Your task to perform on an android device: turn notification dots on Image 0: 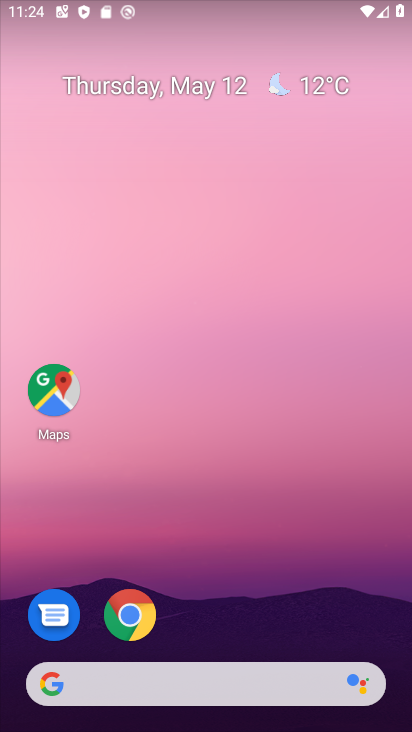
Step 0: drag from (210, 635) to (215, 170)
Your task to perform on an android device: turn notification dots on Image 1: 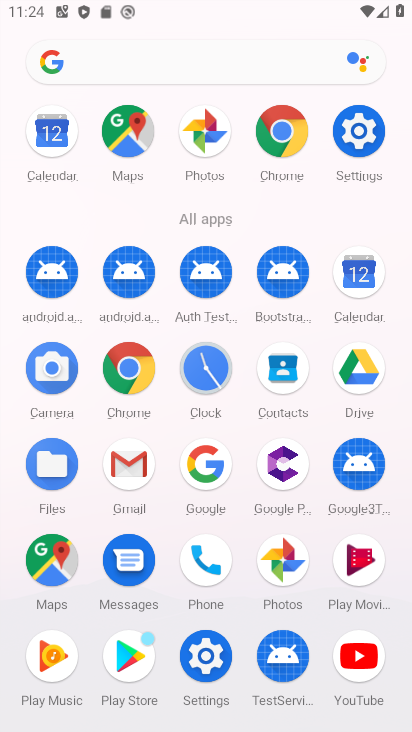
Step 1: click (348, 136)
Your task to perform on an android device: turn notification dots on Image 2: 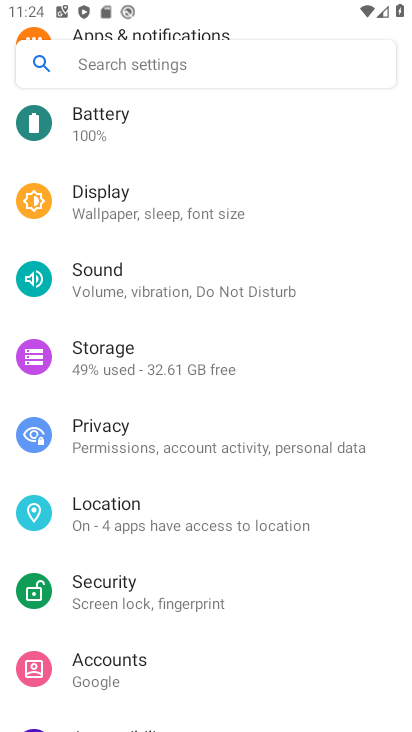
Step 2: drag from (241, 185) to (228, 510)
Your task to perform on an android device: turn notification dots on Image 3: 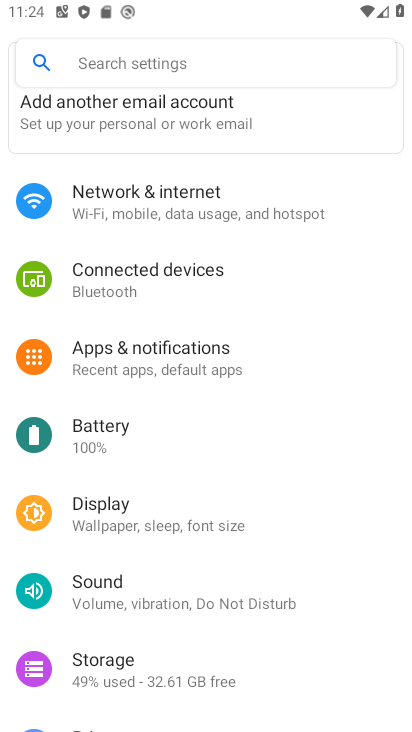
Step 3: click (170, 339)
Your task to perform on an android device: turn notification dots on Image 4: 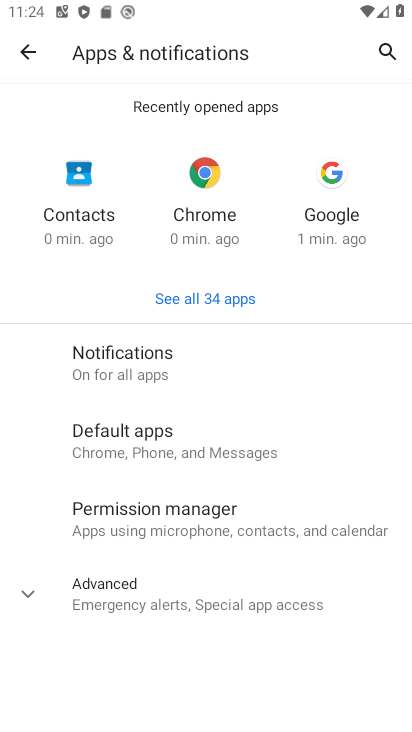
Step 4: click (172, 372)
Your task to perform on an android device: turn notification dots on Image 5: 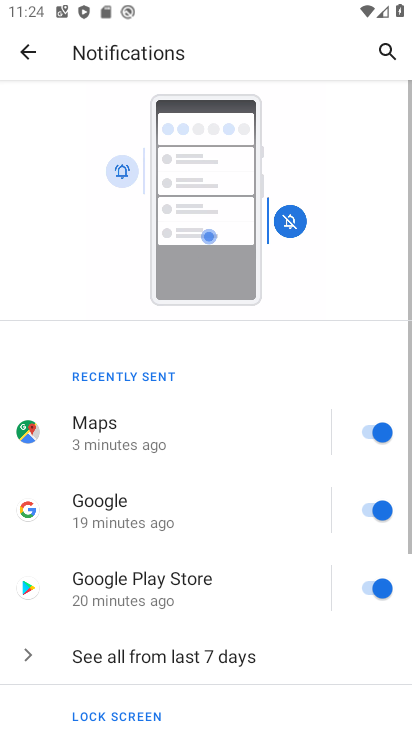
Step 5: drag from (217, 626) to (252, 304)
Your task to perform on an android device: turn notification dots on Image 6: 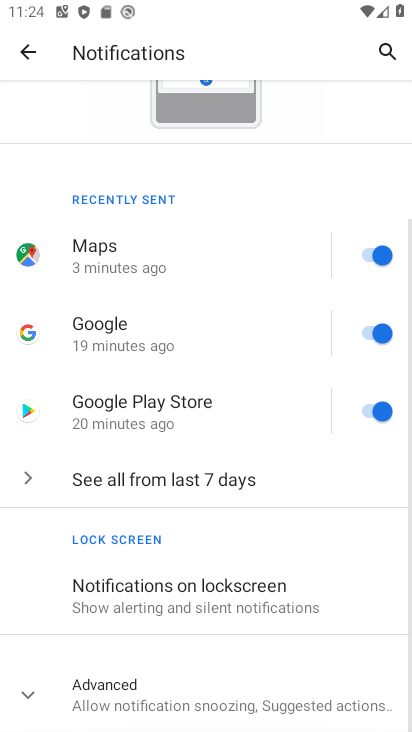
Step 6: drag from (206, 585) to (248, 352)
Your task to perform on an android device: turn notification dots on Image 7: 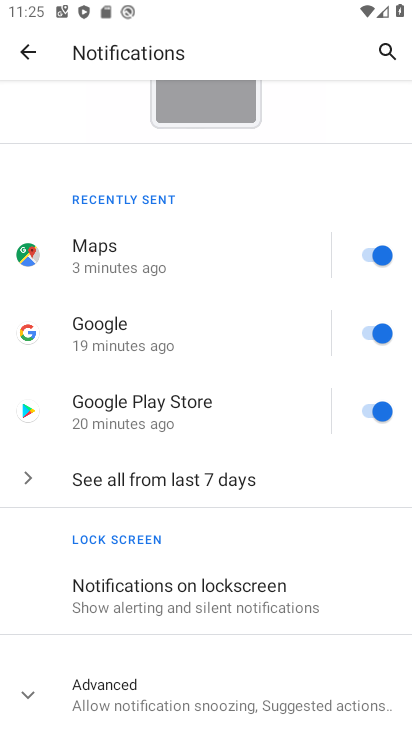
Step 7: drag from (228, 615) to (240, 390)
Your task to perform on an android device: turn notification dots on Image 8: 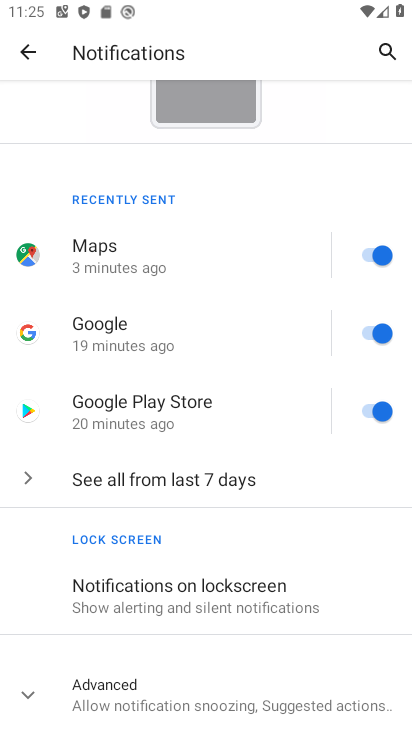
Step 8: click (179, 683)
Your task to perform on an android device: turn notification dots on Image 9: 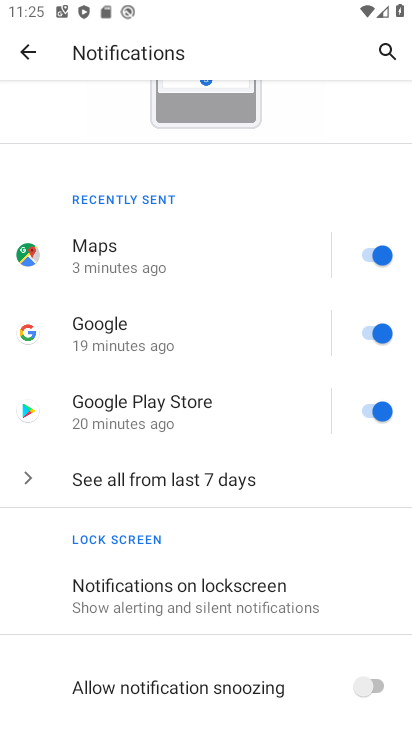
Step 9: task complete